Your task to perform on an android device: toggle translation in the chrome app Image 0: 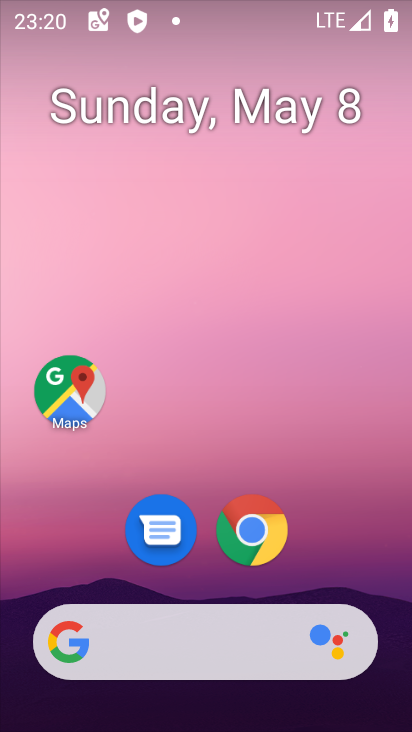
Step 0: drag from (357, 547) to (355, 122)
Your task to perform on an android device: toggle translation in the chrome app Image 1: 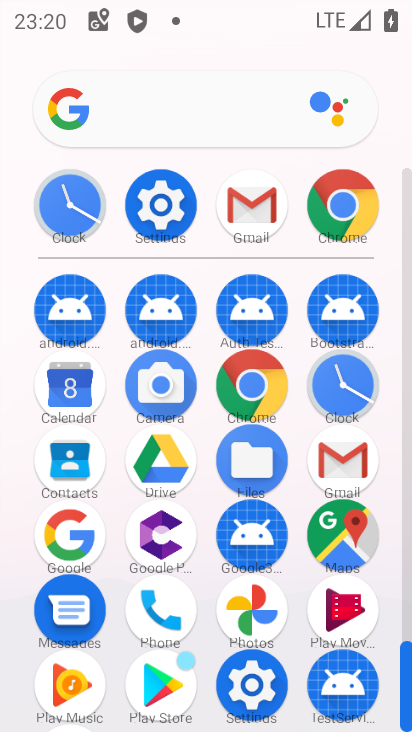
Step 1: click (257, 386)
Your task to perform on an android device: toggle translation in the chrome app Image 2: 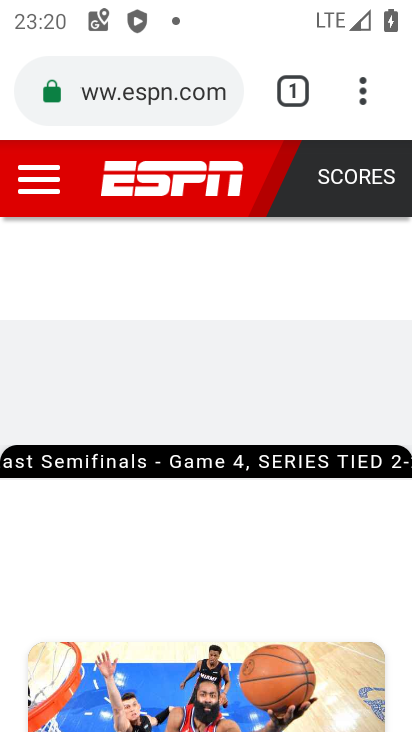
Step 2: drag from (381, 99) to (248, 544)
Your task to perform on an android device: toggle translation in the chrome app Image 3: 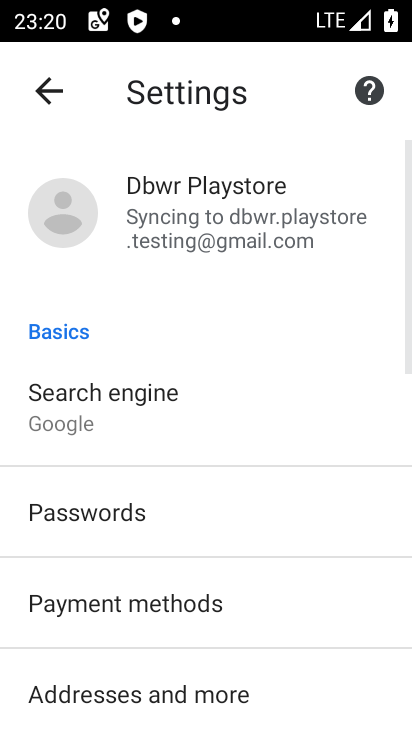
Step 3: drag from (290, 651) to (307, 370)
Your task to perform on an android device: toggle translation in the chrome app Image 4: 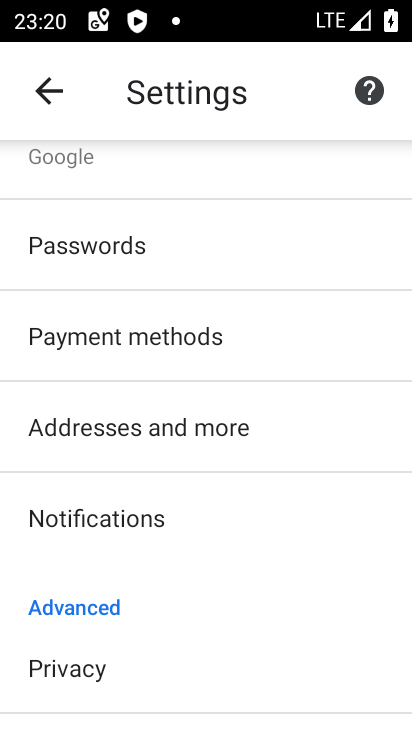
Step 4: drag from (307, 668) to (329, 321)
Your task to perform on an android device: toggle translation in the chrome app Image 5: 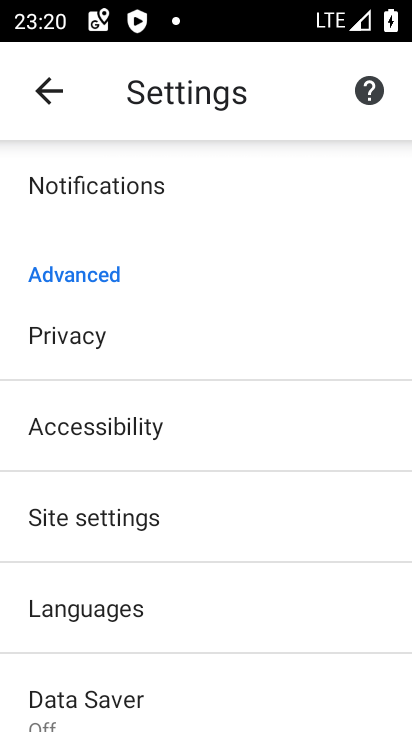
Step 5: drag from (181, 646) to (264, 324)
Your task to perform on an android device: toggle translation in the chrome app Image 6: 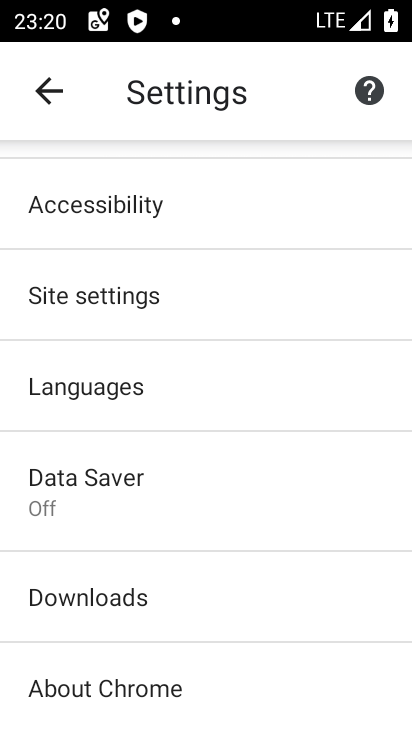
Step 6: click (158, 388)
Your task to perform on an android device: toggle translation in the chrome app Image 7: 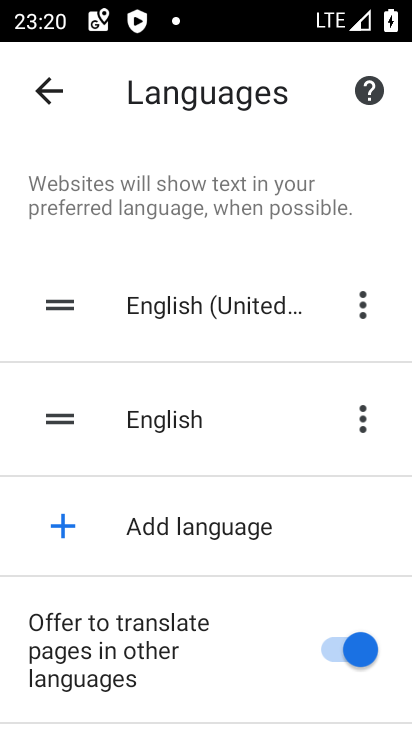
Step 7: click (335, 666)
Your task to perform on an android device: toggle translation in the chrome app Image 8: 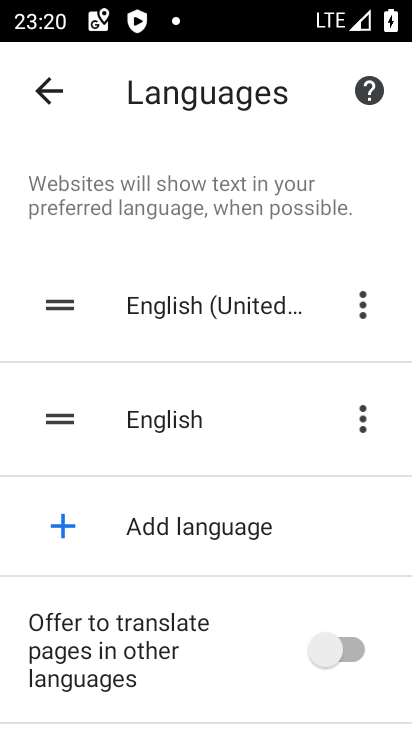
Step 8: task complete